Your task to perform on an android device: toggle show notifications on the lock screen Image 0: 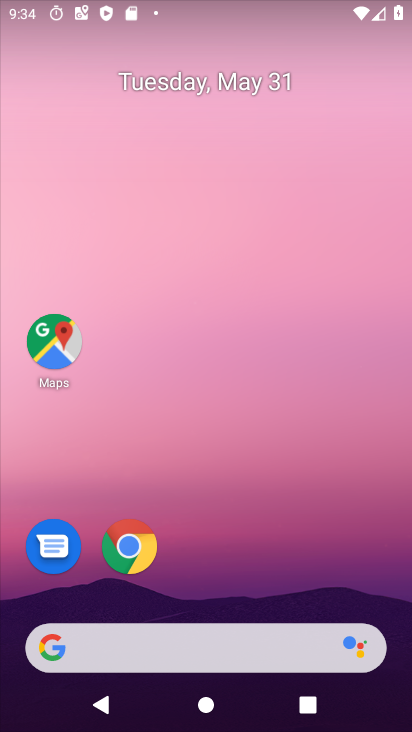
Step 0: drag from (231, 582) to (230, 226)
Your task to perform on an android device: toggle show notifications on the lock screen Image 1: 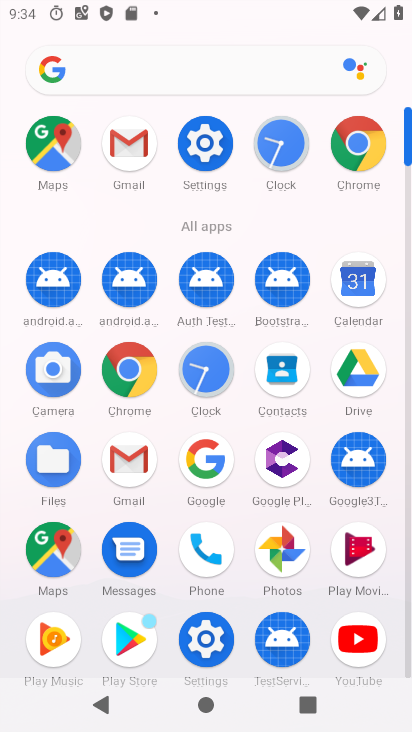
Step 1: click (203, 141)
Your task to perform on an android device: toggle show notifications on the lock screen Image 2: 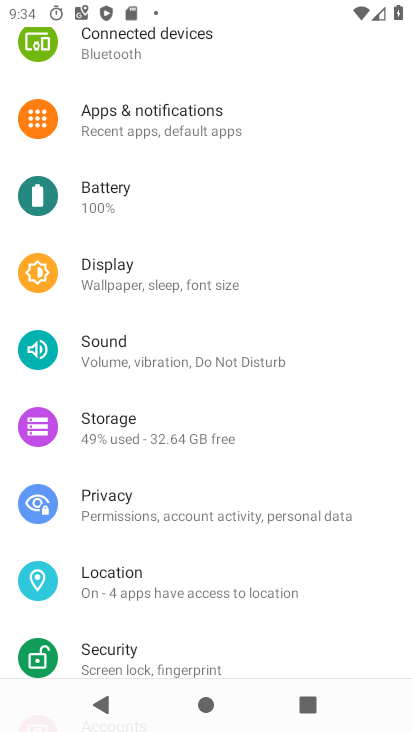
Step 2: click (174, 128)
Your task to perform on an android device: toggle show notifications on the lock screen Image 3: 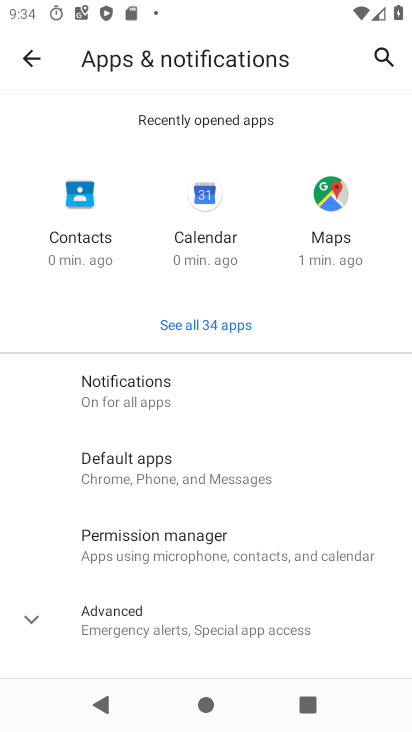
Step 3: click (175, 402)
Your task to perform on an android device: toggle show notifications on the lock screen Image 4: 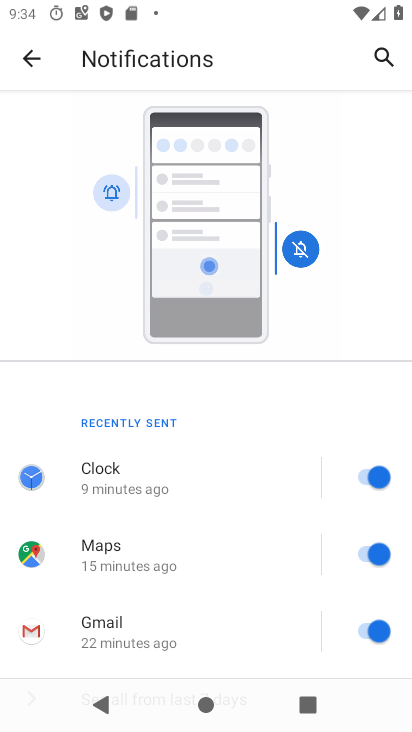
Step 4: drag from (223, 619) to (222, 312)
Your task to perform on an android device: toggle show notifications on the lock screen Image 5: 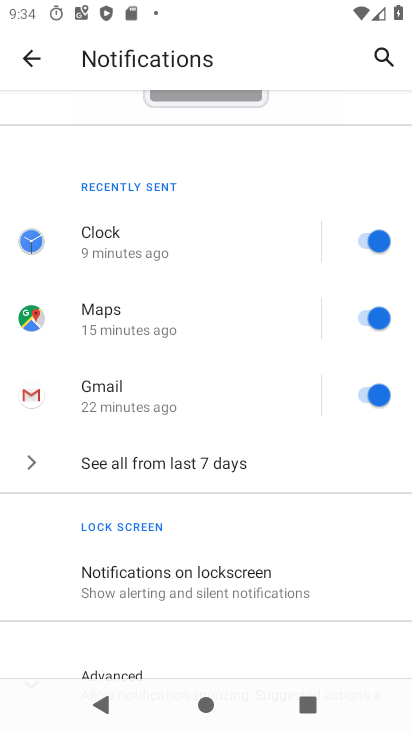
Step 5: click (237, 590)
Your task to perform on an android device: toggle show notifications on the lock screen Image 6: 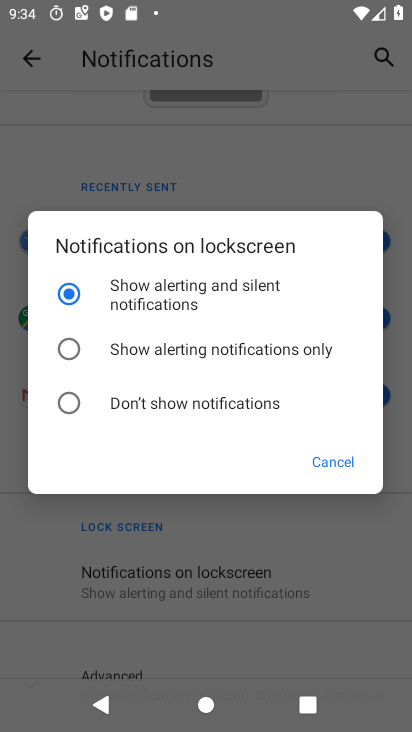
Step 6: click (67, 353)
Your task to perform on an android device: toggle show notifications on the lock screen Image 7: 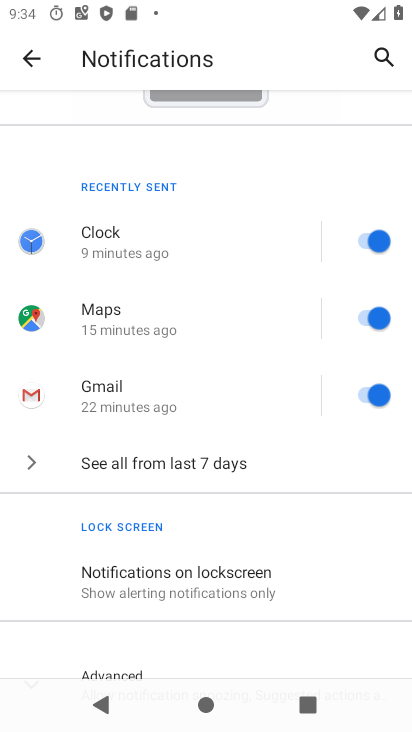
Step 7: task complete